Your task to perform on an android device: open wifi settings Image 0: 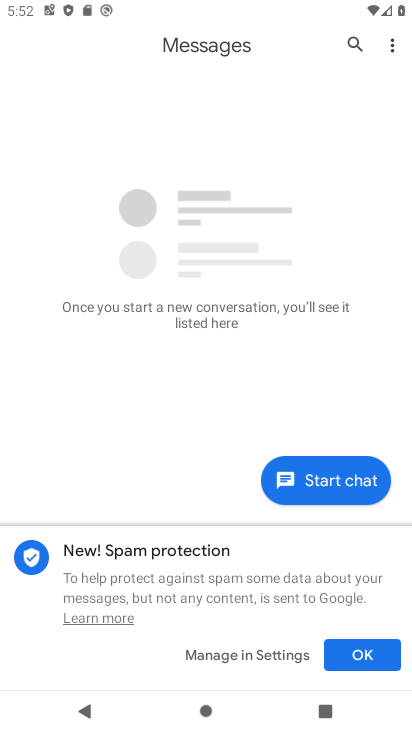
Step 0: press home button
Your task to perform on an android device: open wifi settings Image 1: 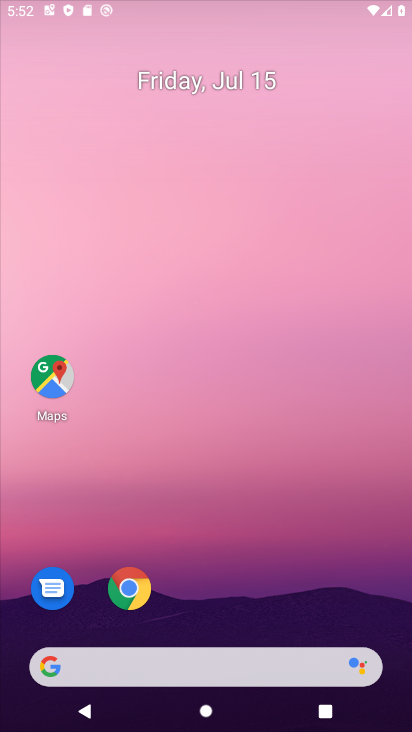
Step 1: drag from (289, 542) to (342, 2)
Your task to perform on an android device: open wifi settings Image 2: 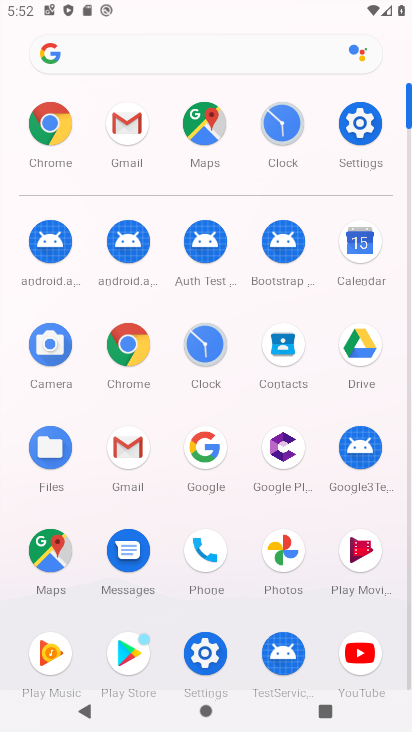
Step 2: click (357, 128)
Your task to perform on an android device: open wifi settings Image 3: 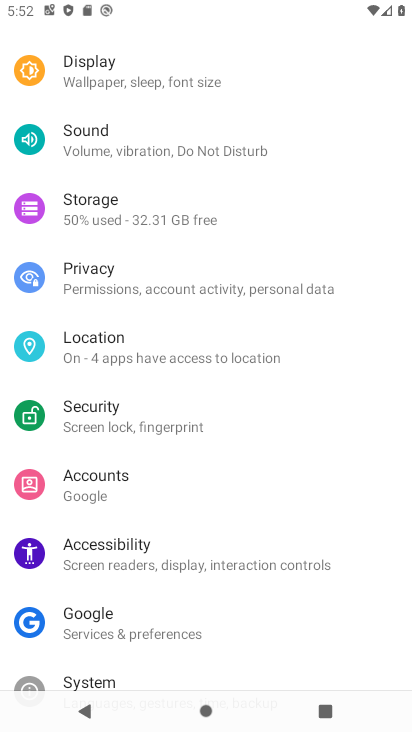
Step 3: drag from (129, 114) to (166, 701)
Your task to perform on an android device: open wifi settings Image 4: 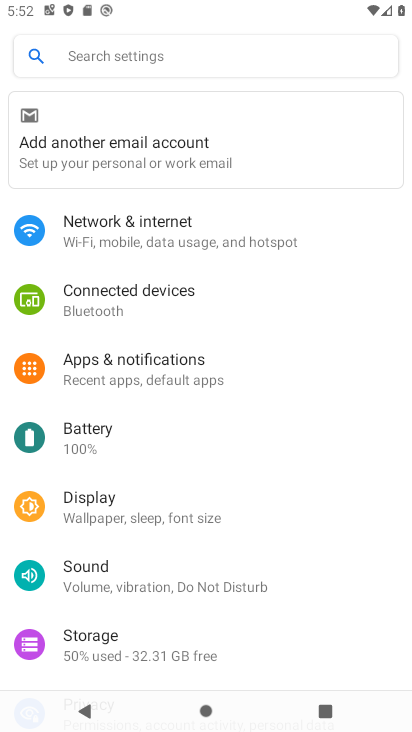
Step 4: click (177, 244)
Your task to perform on an android device: open wifi settings Image 5: 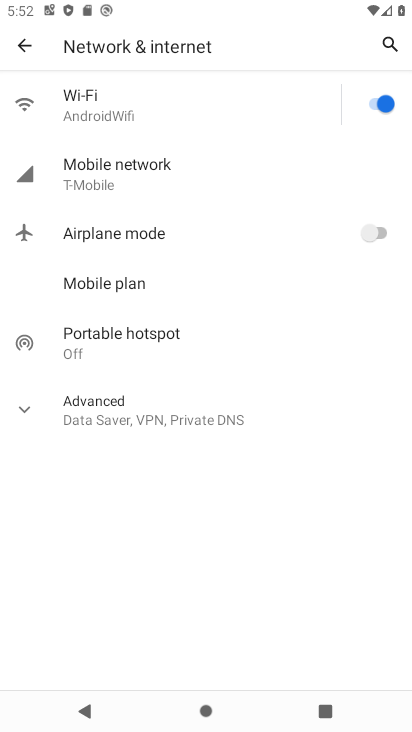
Step 5: task complete